Your task to perform on an android device: change your default location settings in chrome Image 0: 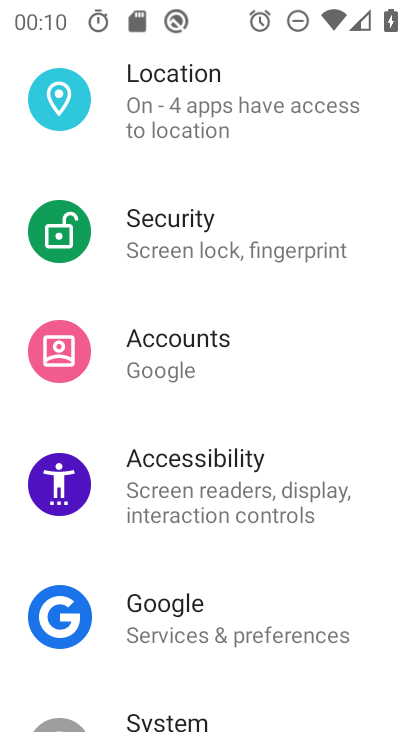
Step 0: press home button
Your task to perform on an android device: change your default location settings in chrome Image 1: 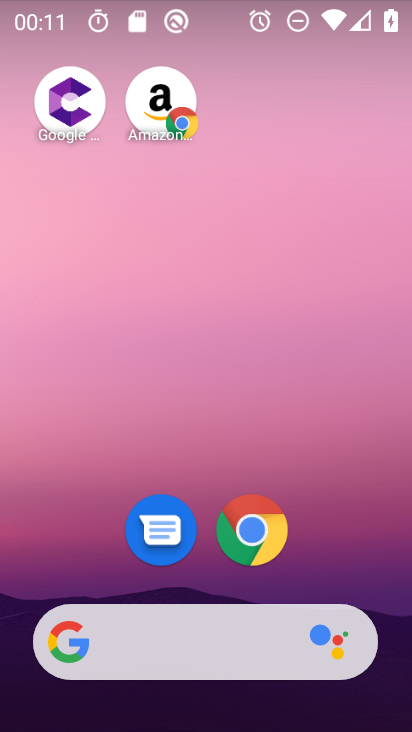
Step 1: drag from (334, 662) to (393, 83)
Your task to perform on an android device: change your default location settings in chrome Image 2: 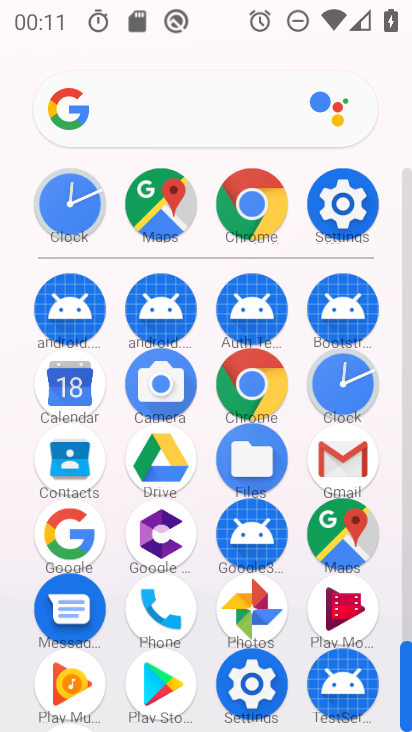
Step 2: drag from (349, 552) to (371, 388)
Your task to perform on an android device: change your default location settings in chrome Image 3: 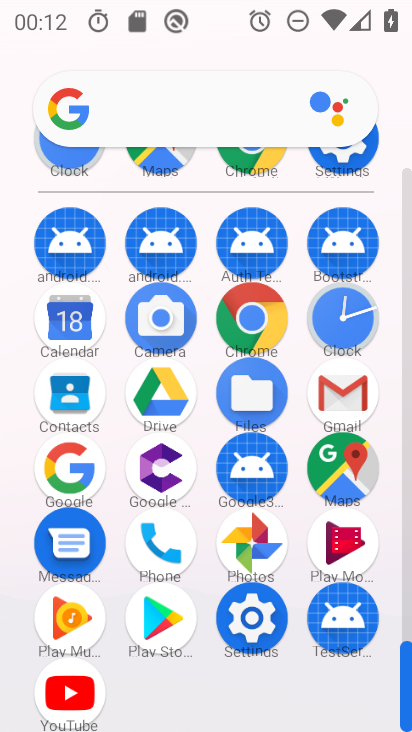
Step 3: click (232, 317)
Your task to perform on an android device: change your default location settings in chrome Image 4: 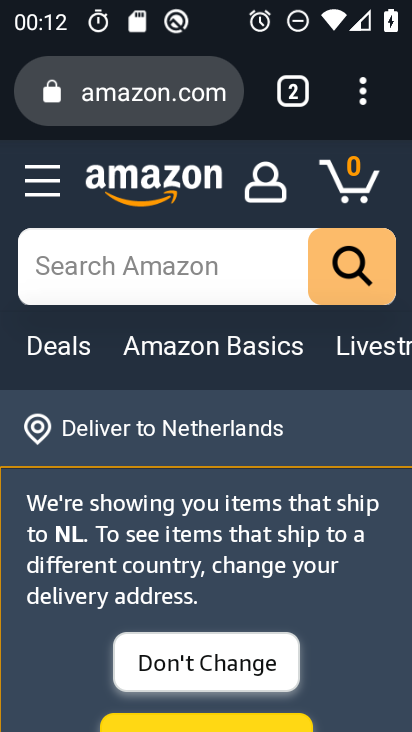
Step 4: click (359, 96)
Your task to perform on an android device: change your default location settings in chrome Image 5: 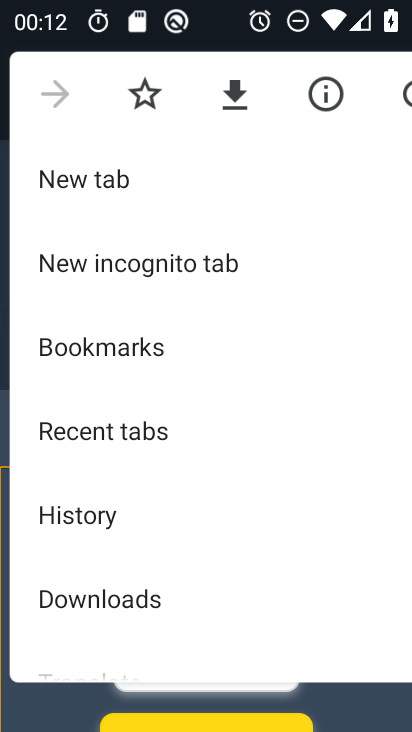
Step 5: drag from (288, 585) to (345, 128)
Your task to perform on an android device: change your default location settings in chrome Image 6: 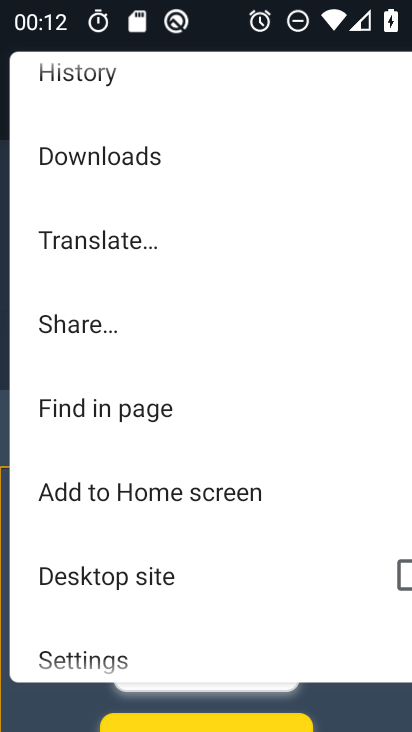
Step 6: click (134, 655)
Your task to perform on an android device: change your default location settings in chrome Image 7: 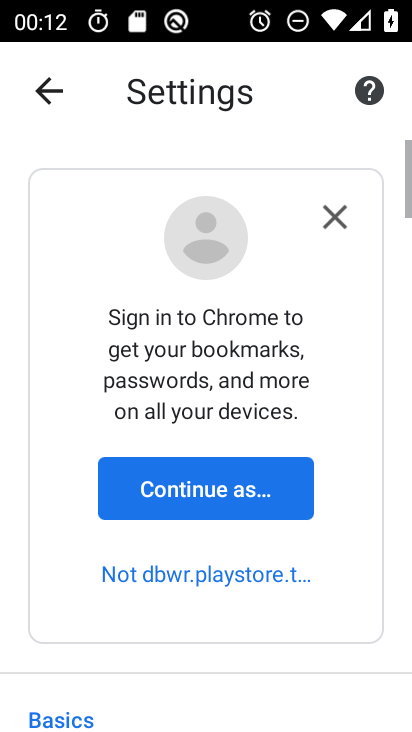
Step 7: click (141, 630)
Your task to perform on an android device: change your default location settings in chrome Image 8: 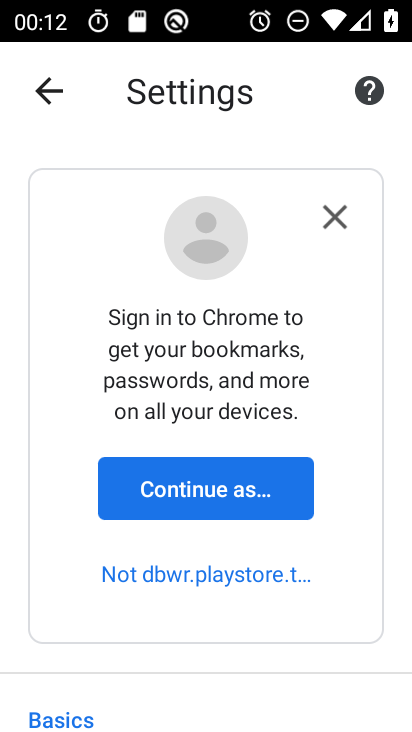
Step 8: click (128, 587)
Your task to perform on an android device: change your default location settings in chrome Image 9: 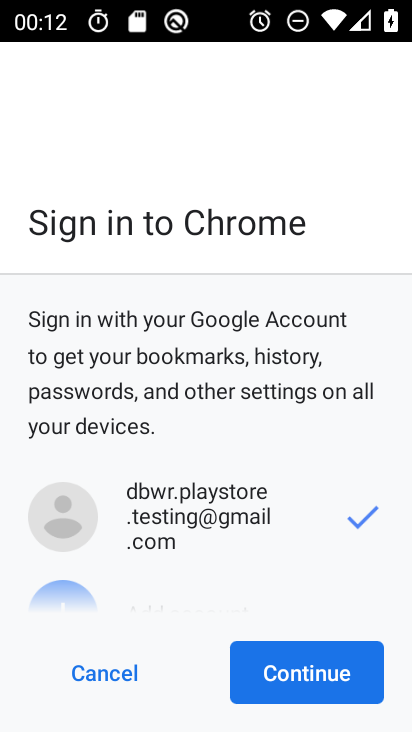
Step 9: click (117, 564)
Your task to perform on an android device: change your default location settings in chrome Image 10: 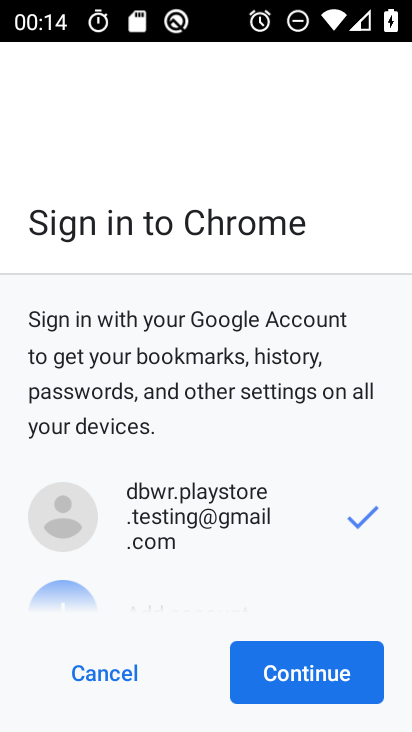
Step 10: press back button
Your task to perform on an android device: change your default location settings in chrome Image 11: 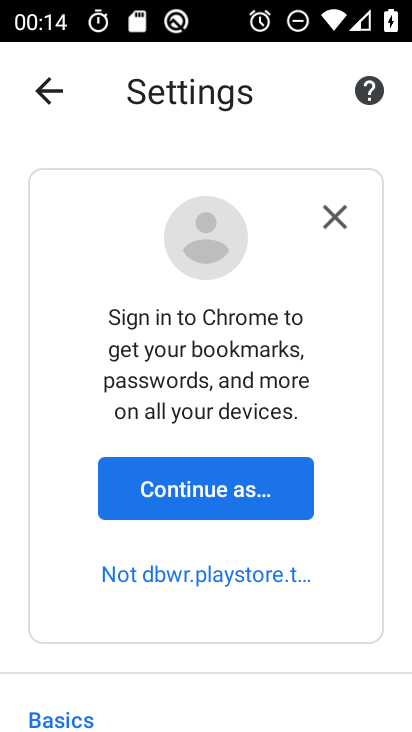
Step 11: drag from (268, 628) to (276, 227)
Your task to perform on an android device: change your default location settings in chrome Image 12: 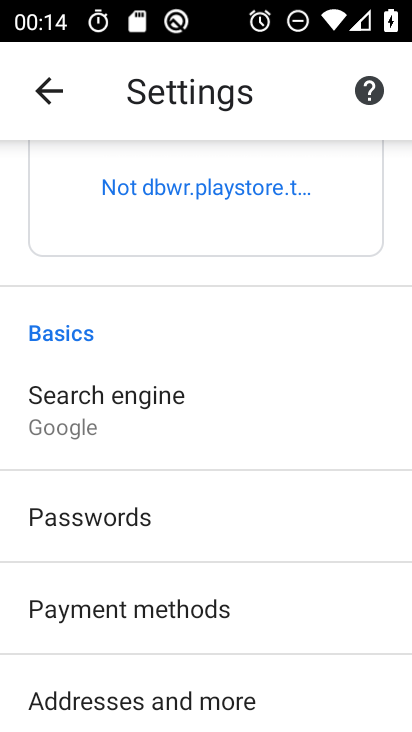
Step 12: drag from (244, 730) to (308, 231)
Your task to perform on an android device: change your default location settings in chrome Image 13: 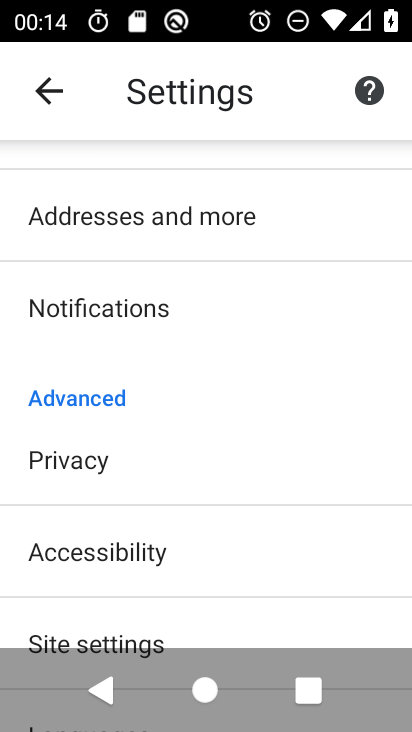
Step 13: drag from (267, 617) to (287, 373)
Your task to perform on an android device: change your default location settings in chrome Image 14: 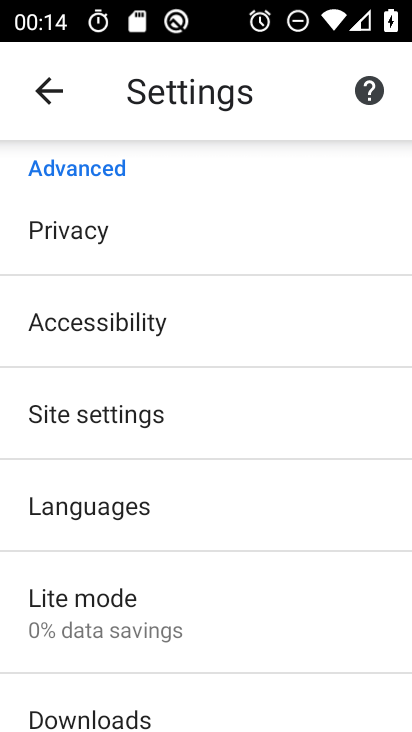
Step 14: click (165, 435)
Your task to perform on an android device: change your default location settings in chrome Image 15: 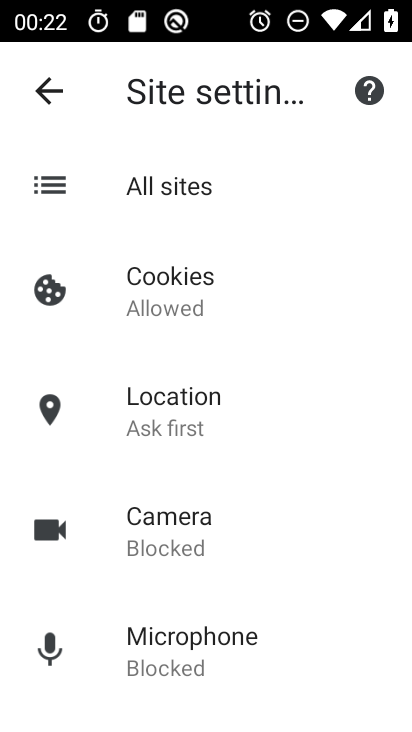
Step 15: click (193, 407)
Your task to perform on an android device: change your default location settings in chrome Image 16: 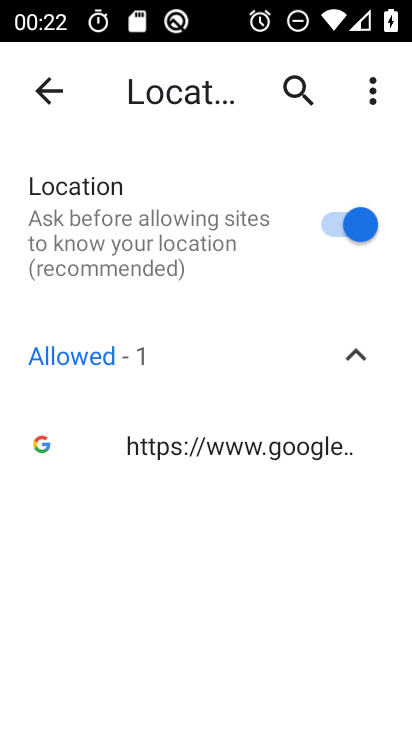
Step 16: task complete